Your task to perform on an android device: toggle wifi Image 0: 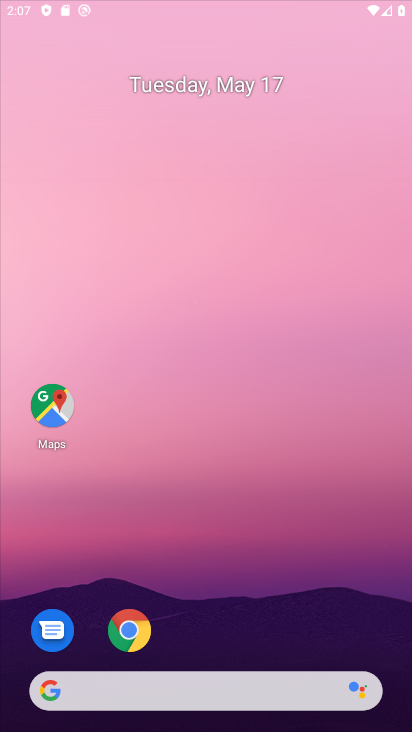
Step 0: click (187, 45)
Your task to perform on an android device: toggle wifi Image 1: 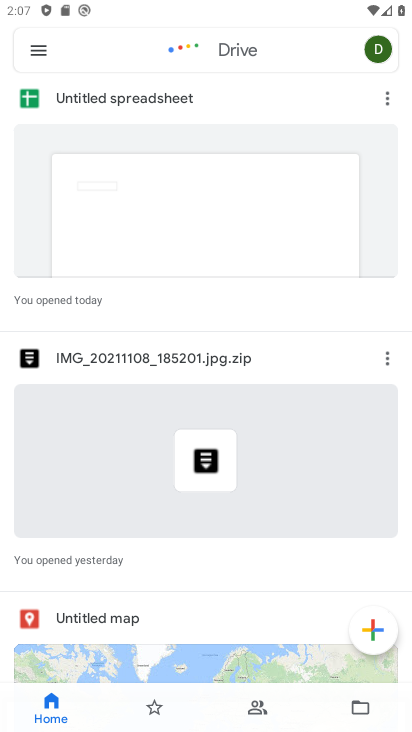
Step 1: drag from (219, 508) to (179, 44)
Your task to perform on an android device: toggle wifi Image 2: 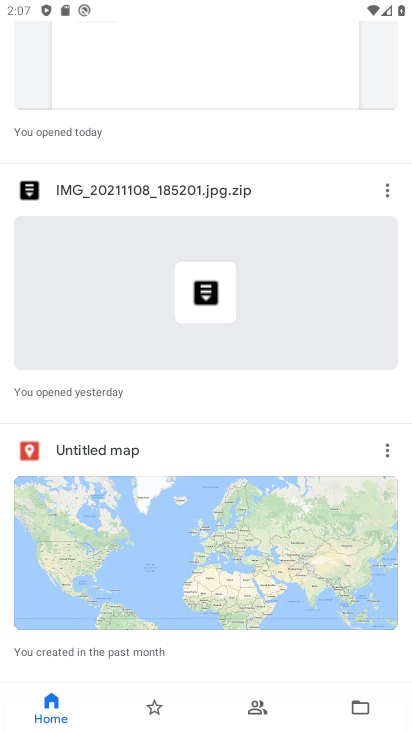
Step 2: press back button
Your task to perform on an android device: toggle wifi Image 3: 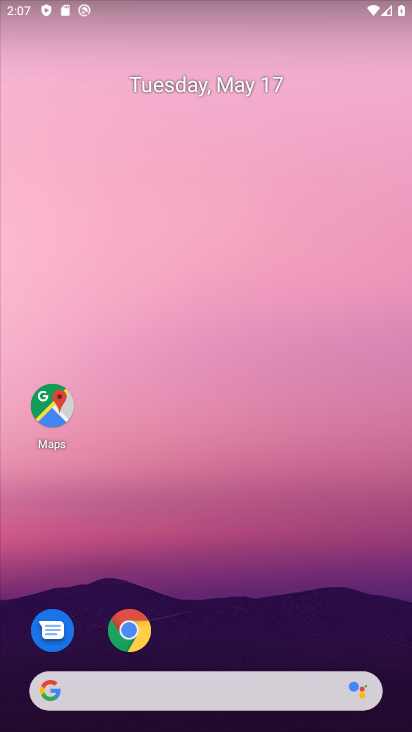
Step 3: drag from (203, 726) to (142, 243)
Your task to perform on an android device: toggle wifi Image 4: 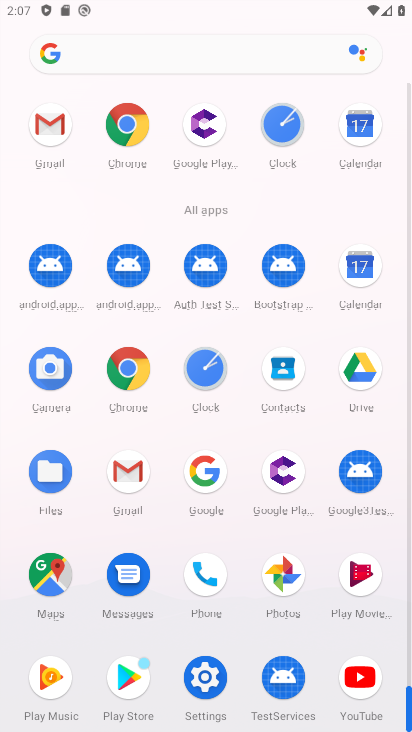
Step 4: click (206, 678)
Your task to perform on an android device: toggle wifi Image 5: 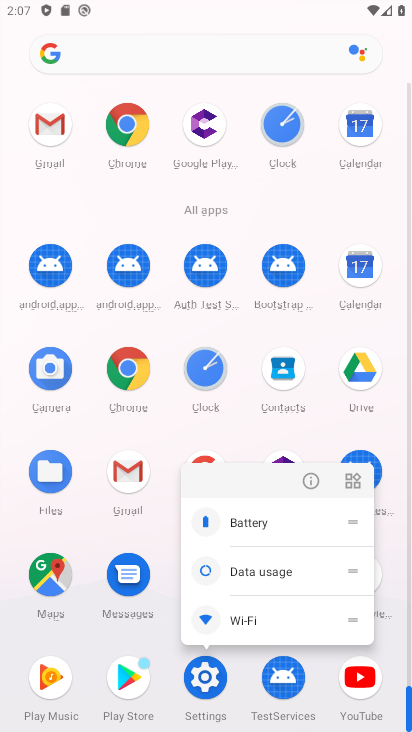
Step 5: click (215, 695)
Your task to perform on an android device: toggle wifi Image 6: 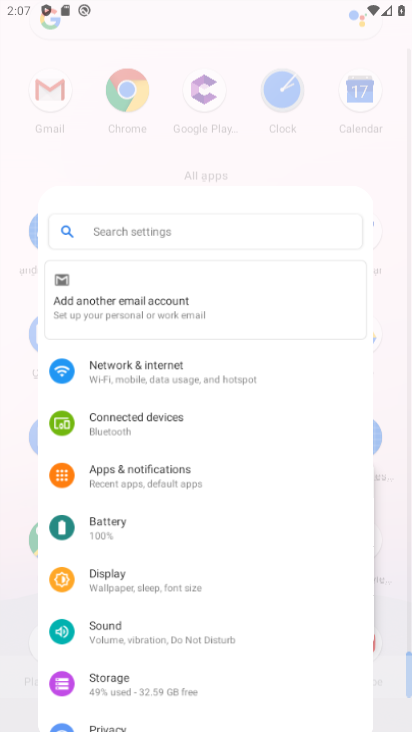
Step 6: click (208, 686)
Your task to perform on an android device: toggle wifi Image 7: 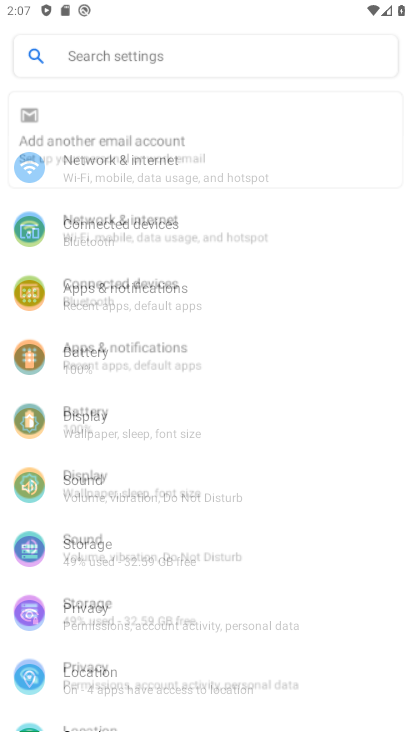
Step 7: click (208, 685)
Your task to perform on an android device: toggle wifi Image 8: 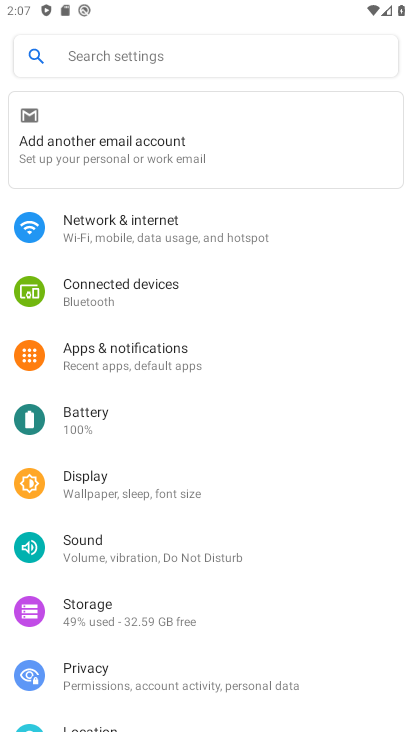
Step 8: click (208, 685)
Your task to perform on an android device: toggle wifi Image 9: 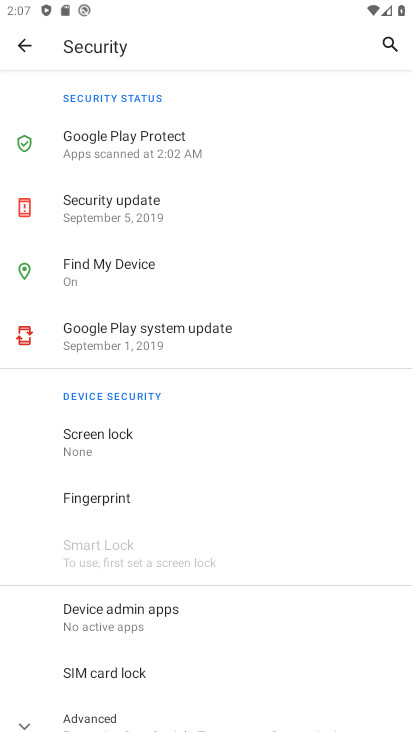
Step 9: click (87, 622)
Your task to perform on an android device: toggle wifi Image 10: 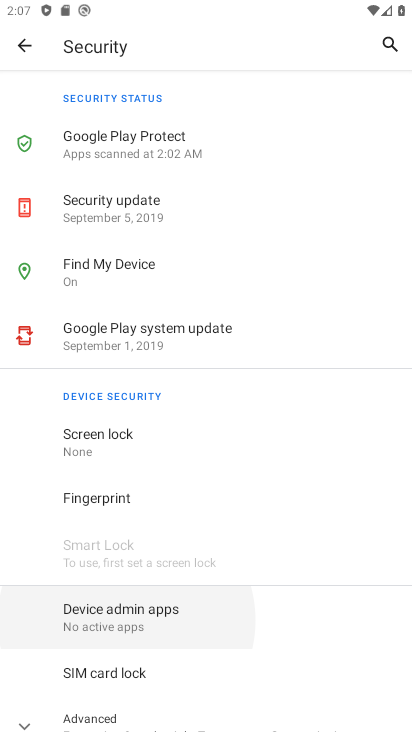
Step 10: click (92, 616)
Your task to perform on an android device: toggle wifi Image 11: 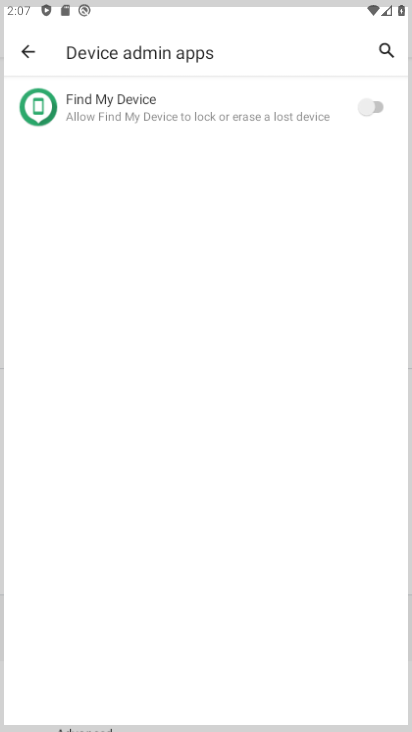
Step 11: click (93, 611)
Your task to perform on an android device: toggle wifi Image 12: 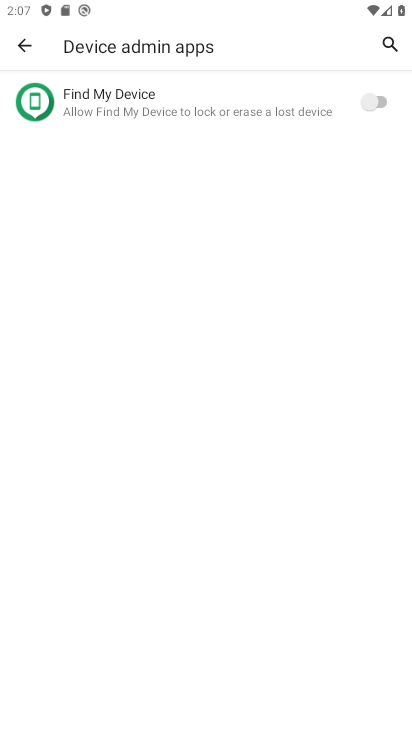
Step 12: click (94, 607)
Your task to perform on an android device: toggle wifi Image 13: 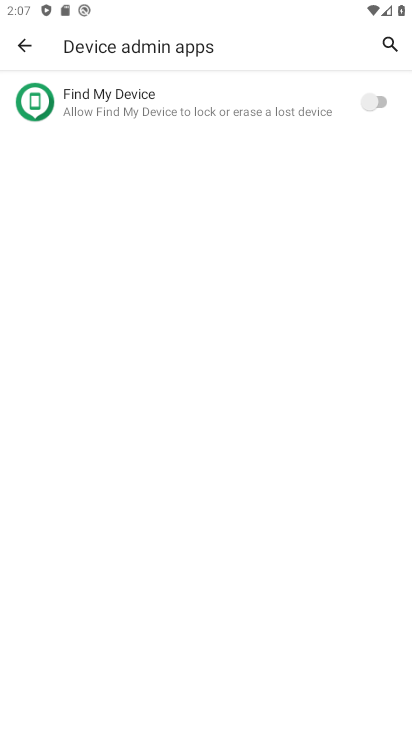
Step 13: click (21, 42)
Your task to perform on an android device: toggle wifi Image 14: 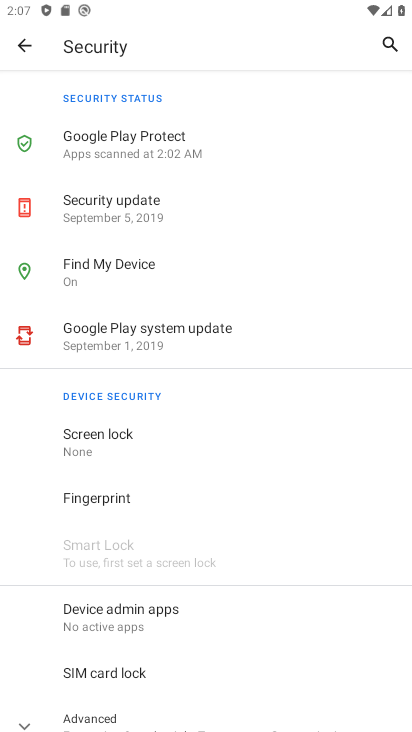
Step 14: click (13, 41)
Your task to perform on an android device: toggle wifi Image 15: 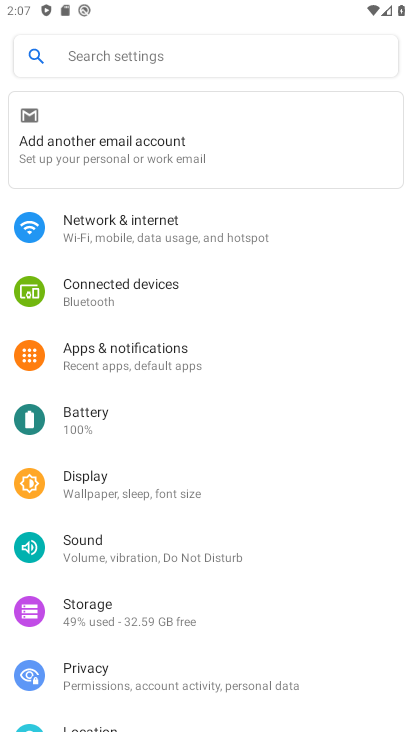
Step 15: click (126, 231)
Your task to perform on an android device: toggle wifi Image 16: 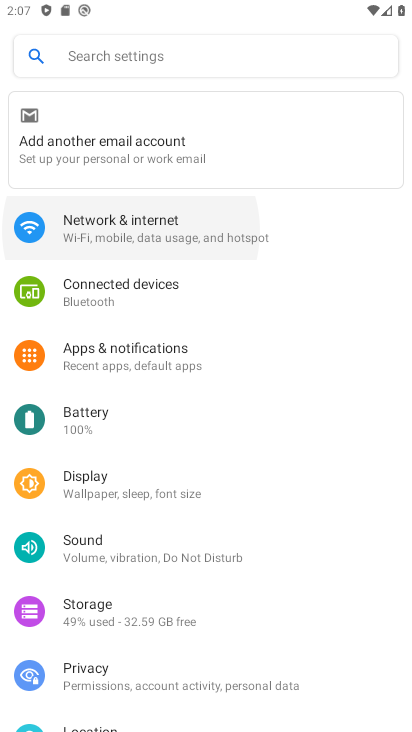
Step 16: click (126, 231)
Your task to perform on an android device: toggle wifi Image 17: 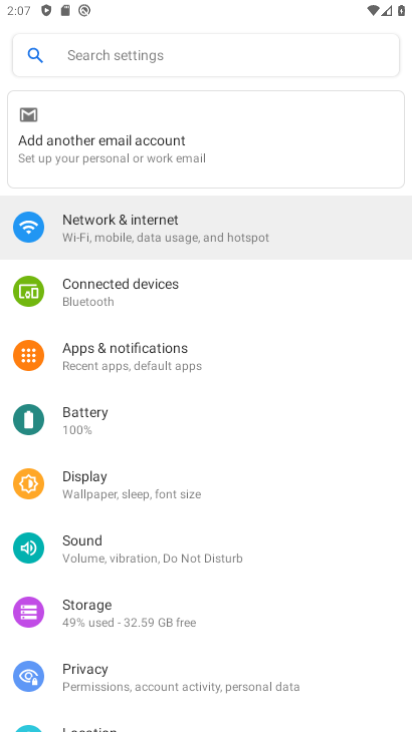
Step 17: click (126, 231)
Your task to perform on an android device: toggle wifi Image 18: 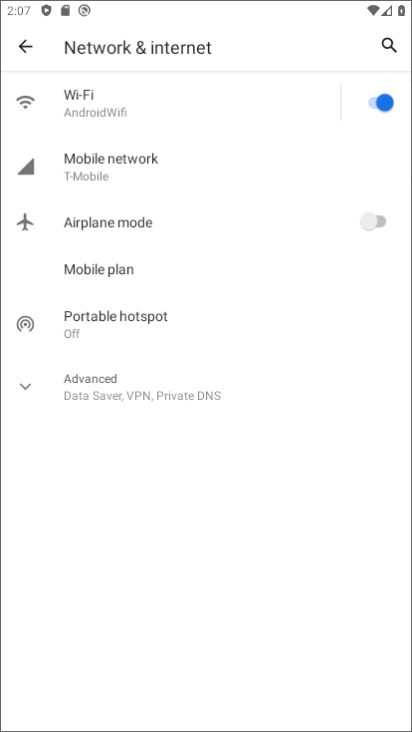
Step 18: click (126, 231)
Your task to perform on an android device: toggle wifi Image 19: 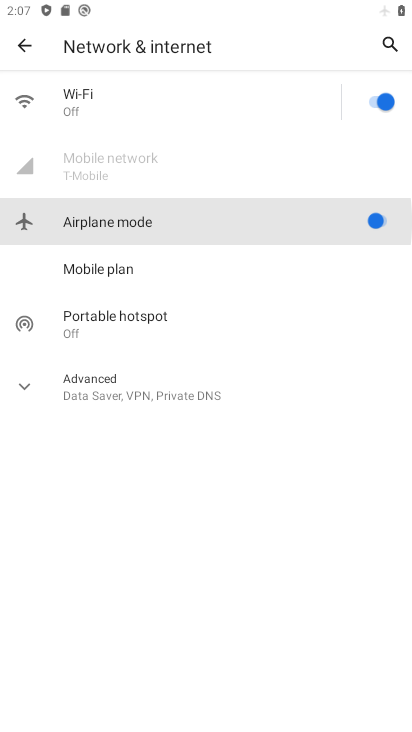
Step 19: click (126, 231)
Your task to perform on an android device: toggle wifi Image 20: 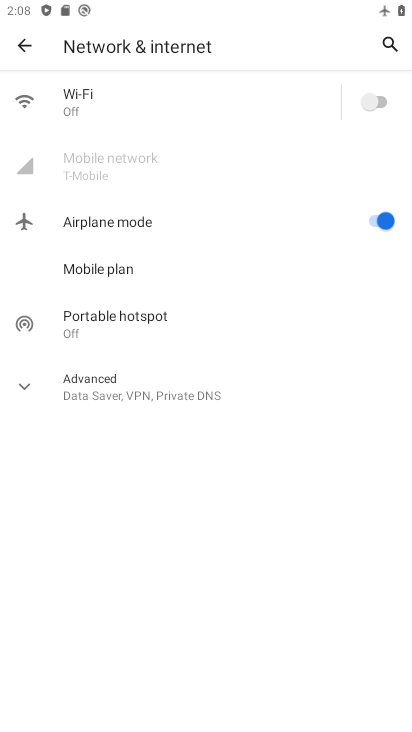
Step 20: click (370, 92)
Your task to perform on an android device: toggle wifi Image 21: 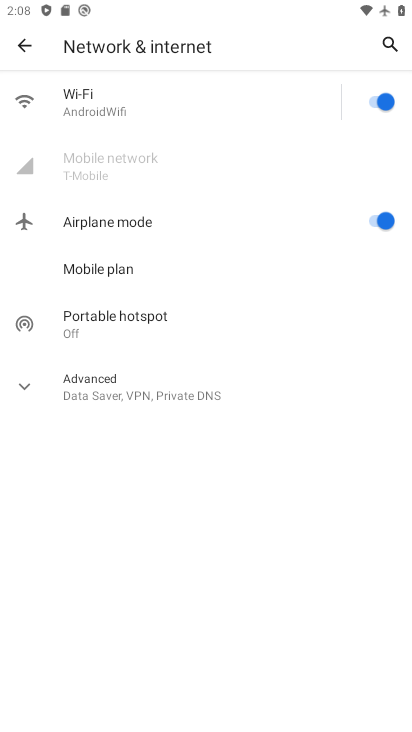
Step 21: click (383, 224)
Your task to perform on an android device: toggle wifi Image 22: 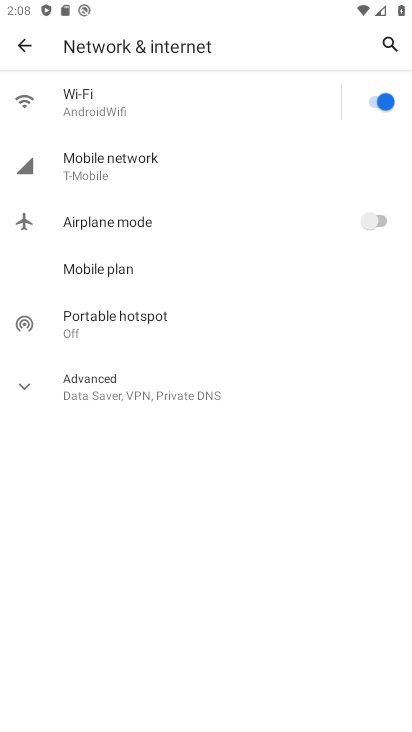
Step 22: task complete